Your task to perform on an android device: Go to Maps Image 0: 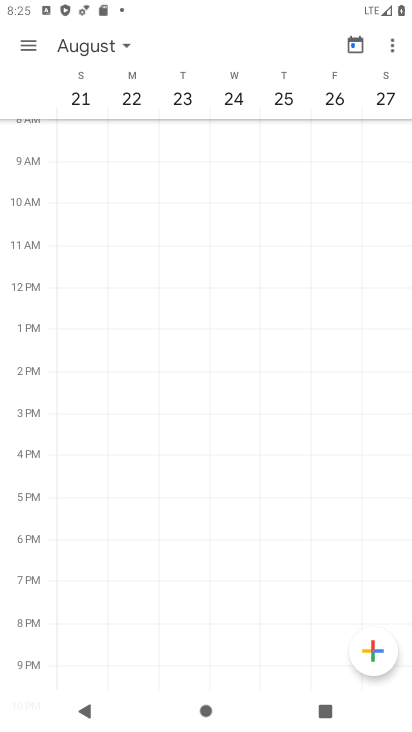
Step 0: press home button
Your task to perform on an android device: Go to Maps Image 1: 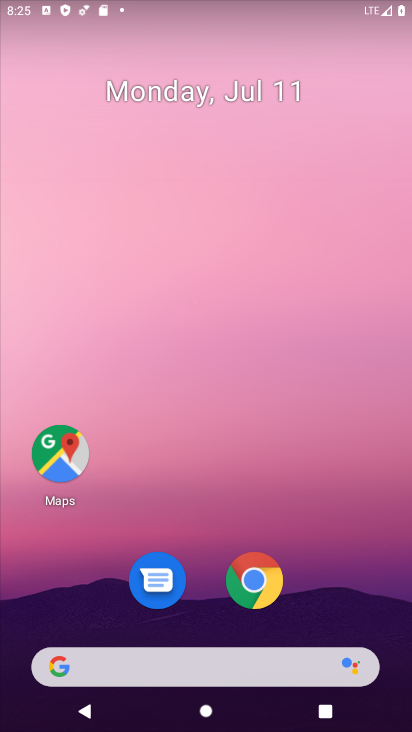
Step 1: click (59, 451)
Your task to perform on an android device: Go to Maps Image 2: 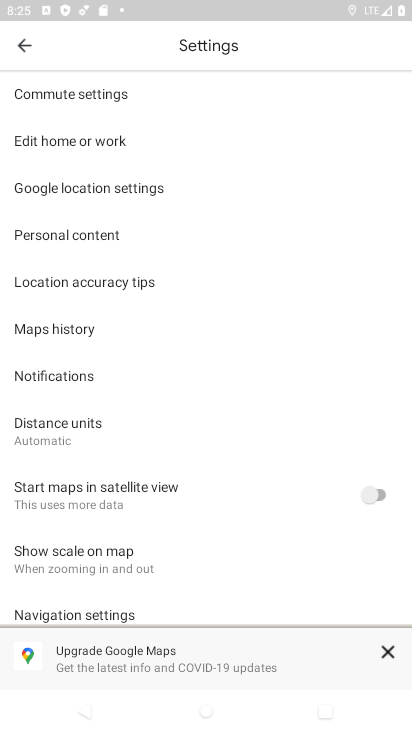
Step 2: click (25, 45)
Your task to perform on an android device: Go to Maps Image 3: 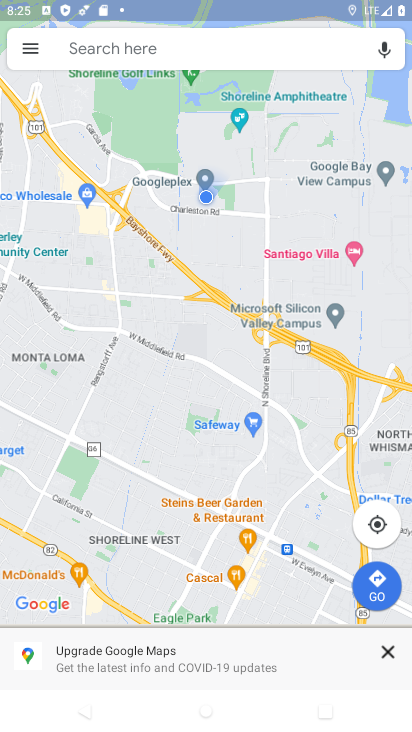
Step 3: task complete